Your task to perform on an android device: Open Android settings Image 0: 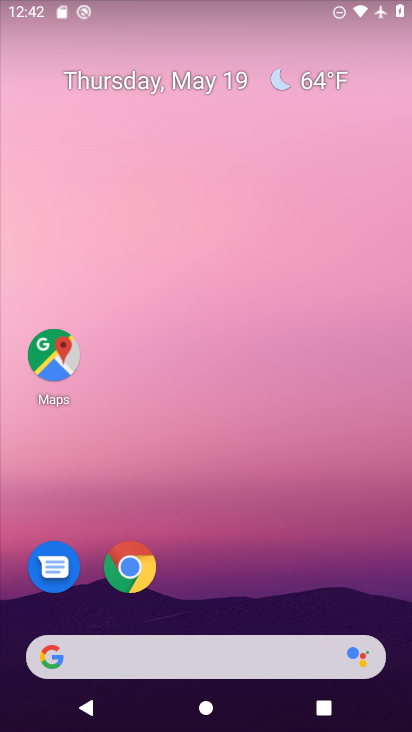
Step 0: drag from (242, 578) to (267, 171)
Your task to perform on an android device: Open Android settings Image 1: 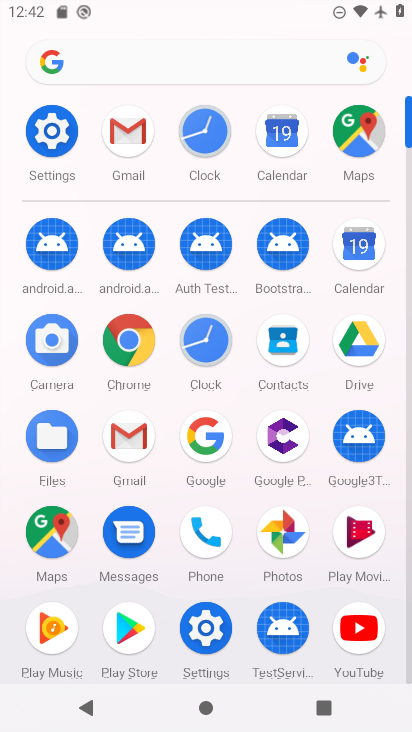
Step 1: click (59, 149)
Your task to perform on an android device: Open Android settings Image 2: 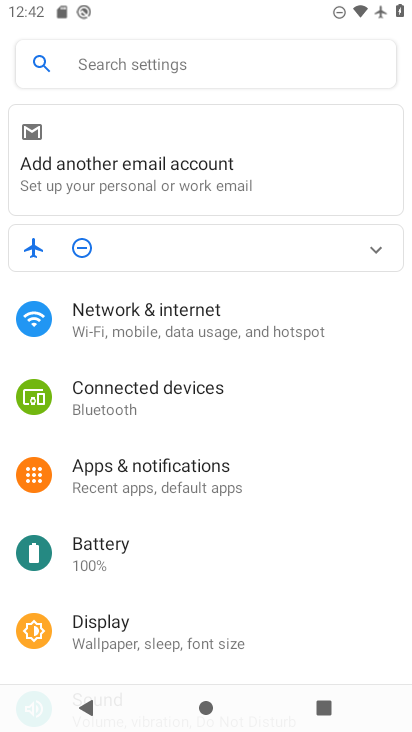
Step 2: drag from (150, 578) to (184, 115)
Your task to perform on an android device: Open Android settings Image 3: 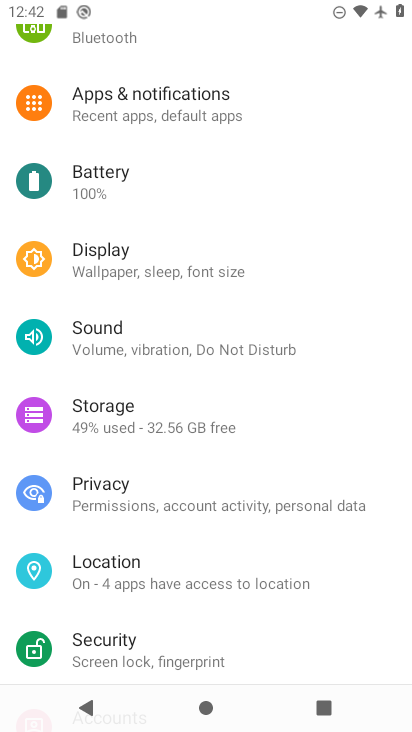
Step 3: drag from (169, 466) to (218, 111)
Your task to perform on an android device: Open Android settings Image 4: 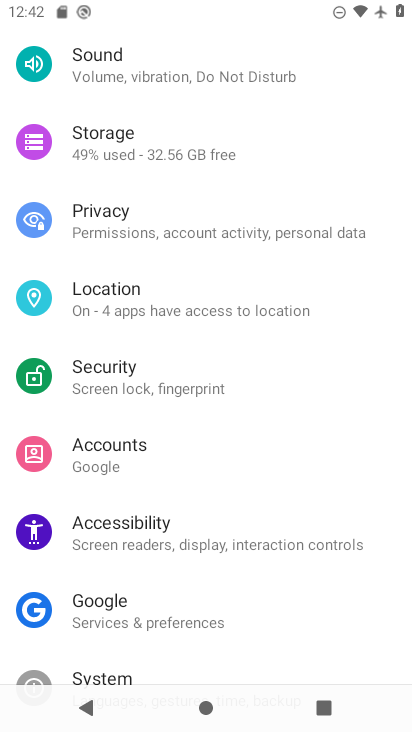
Step 4: drag from (223, 548) to (235, 238)
Your task to perform on an android device: Open Android settings Image 5: 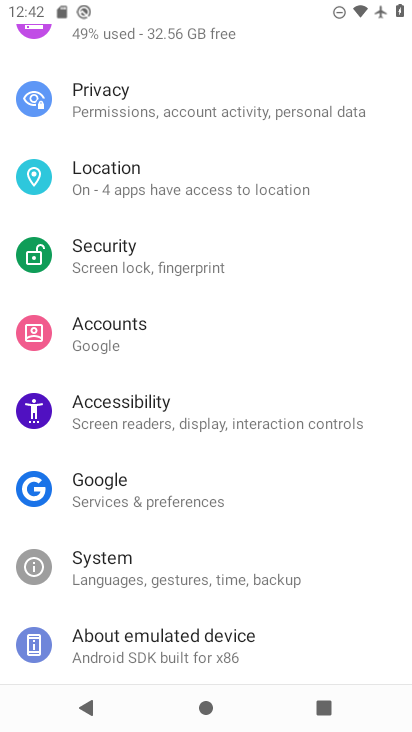
Step 5: click (212, 649)
Your task to perform on an android device: Open Android settings Image 6: 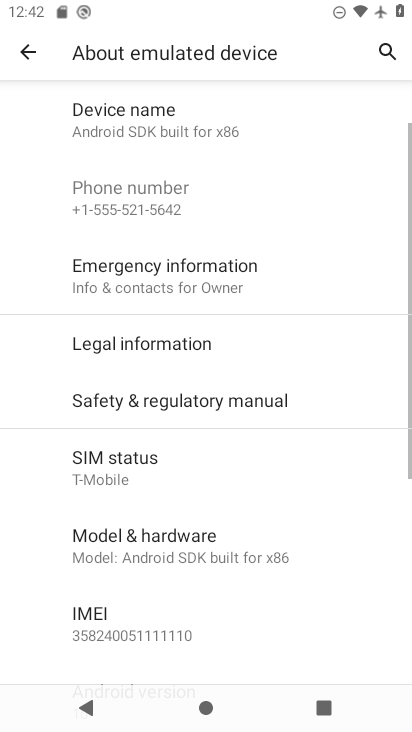
Step 6: drag from (170, 595) to (136, 217)
Your task to perform on an android device: Open Android settings Image 7: 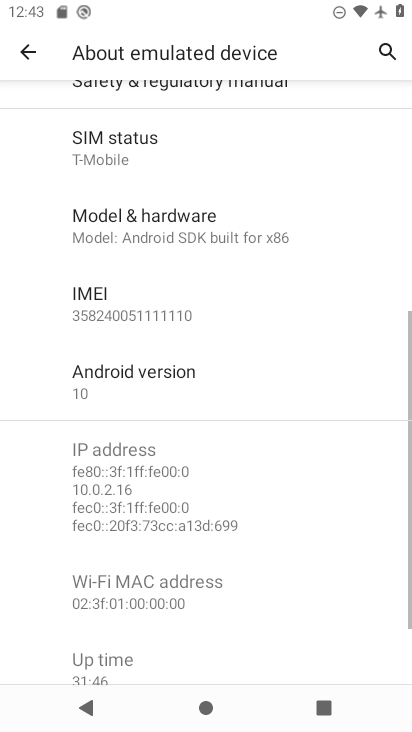
Step 7: click (107, 392)
Your task to perform on an android device: Open Android settings Image 8: 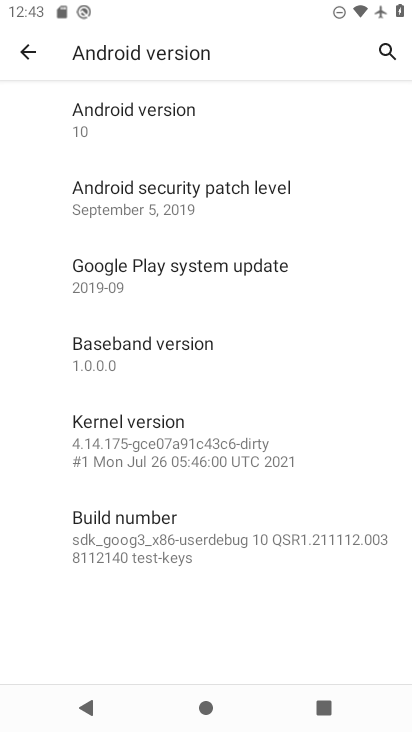
Step 8: task complete